Your task to perform on an android device: toggle notification dots Image 0: 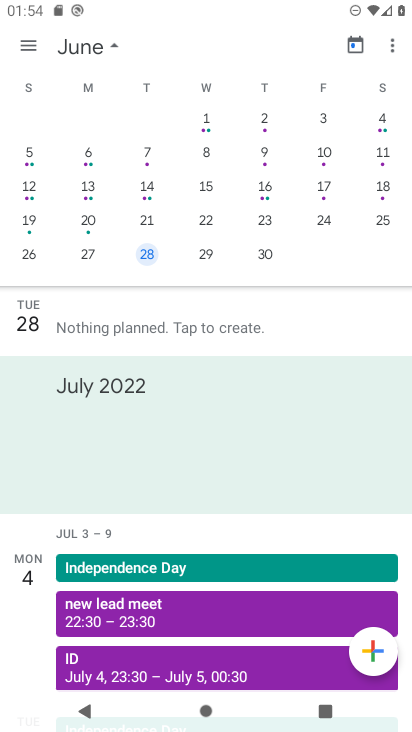
Step 0: press home button
Your task to perform on an android device: toggle notification dots Image 1: 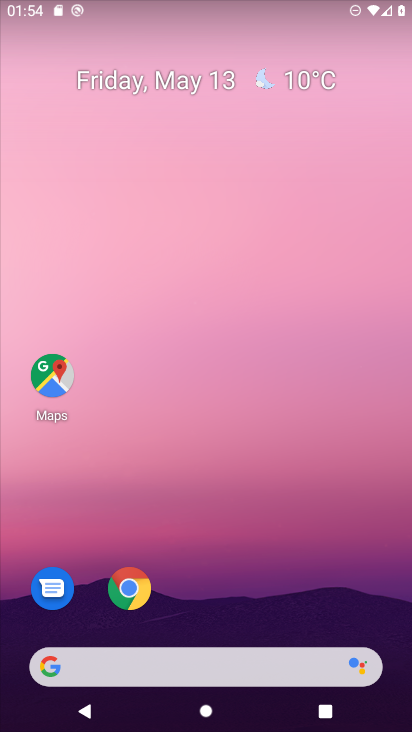
Step 1: drag from (274, 599) to (289, 133)
Your task to perform on an android device: toggle notification dots Image 2: 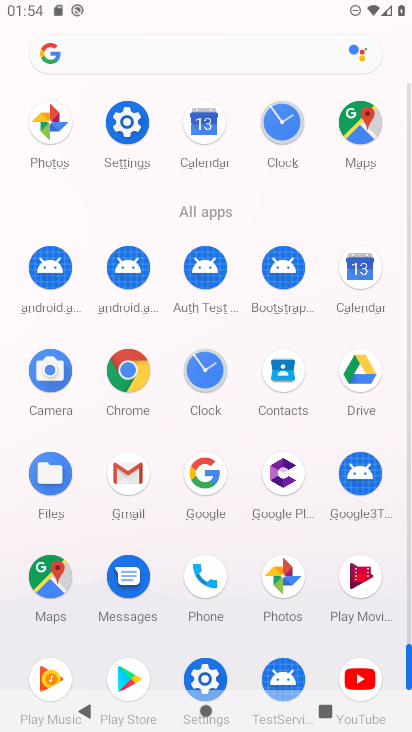
Step 2: click (207, 664)
Your task to perform on an android device: toggle notification dots Image 3: 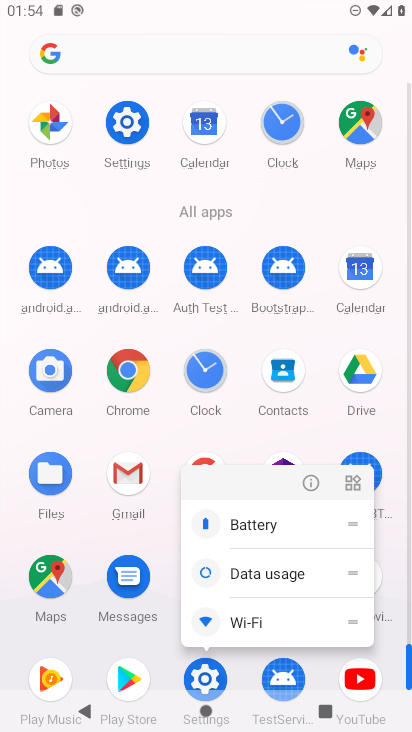
Step 3: click (202, 672)
Your task to perform on an android device: toggle notification dots Image 4: 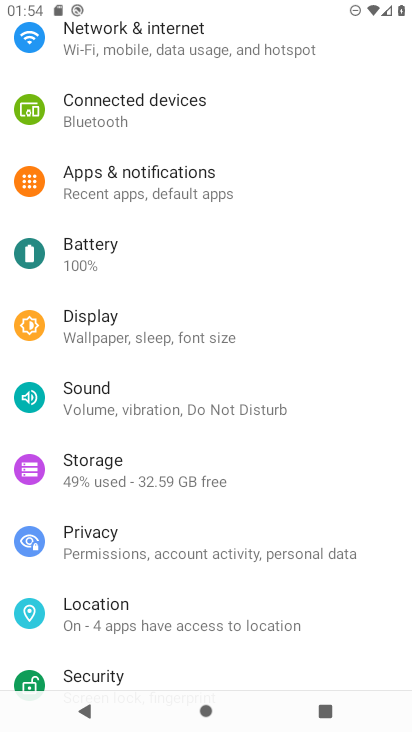
Step 4: drag from (296, 182) to (277, 665)
Your task to perform on an android device: toggle notification dots Image 5: 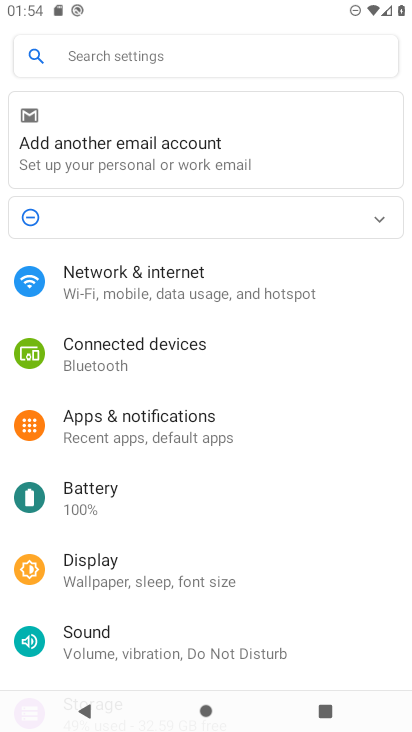
Step 5: click (168, 405)
Your task to perform on an android device: toggle notification dots Image 6: 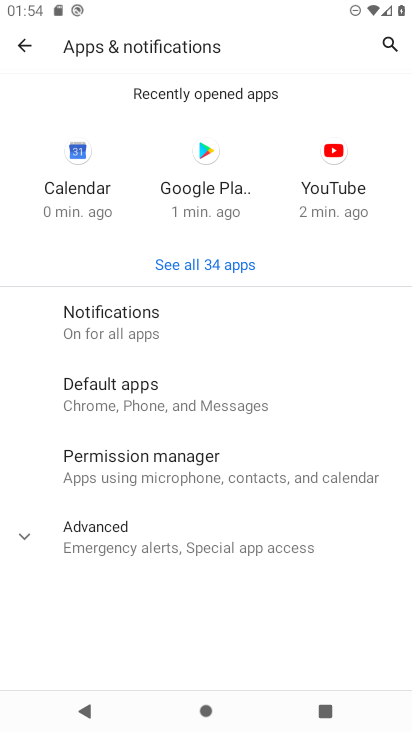
Step 6: click (79, 321)
Your task to perform on an android device: toggle notification dots Image 7: 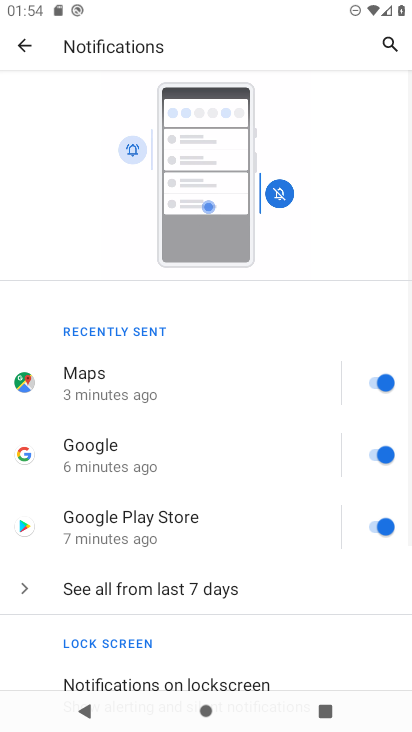
Step 7: drag from (320, 668) to (299, 282)
Your task to perform on an android device: toggle notification dots Image 8: 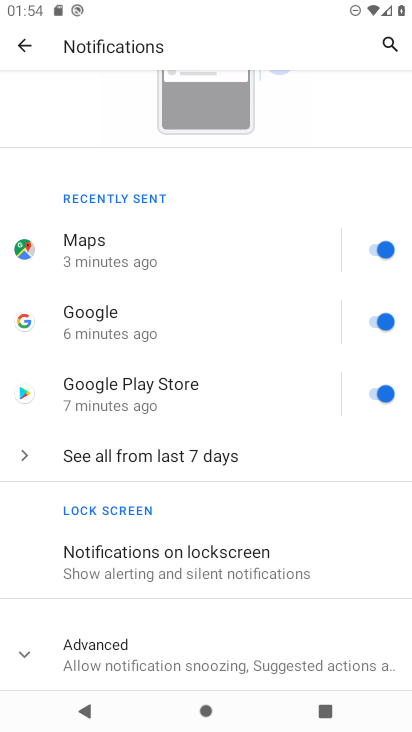
Step 8: click (95, 660)
Your task to perform on an android device: toggle notification dots Image 9: 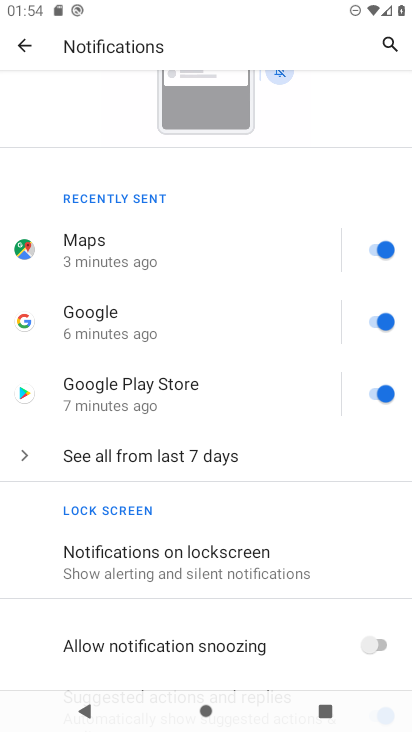
Step 9: drag from (312, 649) to (326, 392)
Your task to perform on an android device: toggle notification dots Image 10: 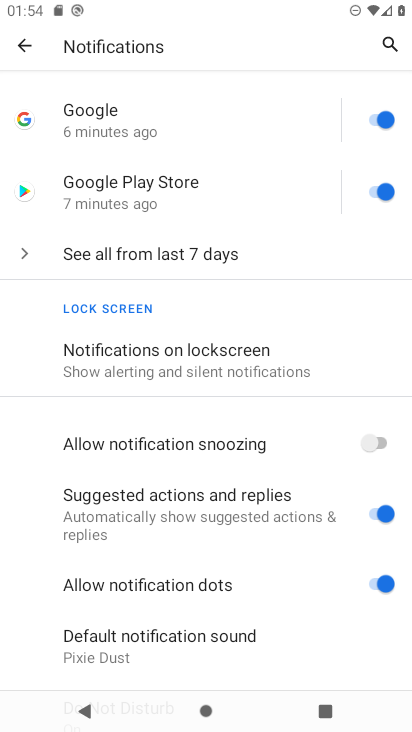
Step 10: click (386, 586)
Your task to perform on an android device: toggle notification dots Image 11: 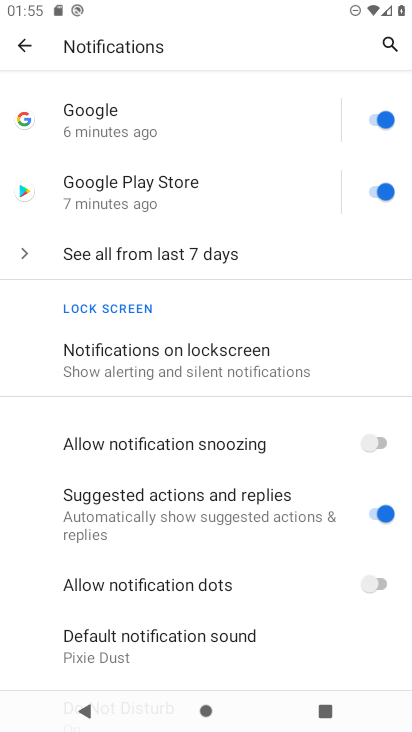
Step 11: task complete